Your task to perform on an android device: toggle translation in the chrome app Image 0: 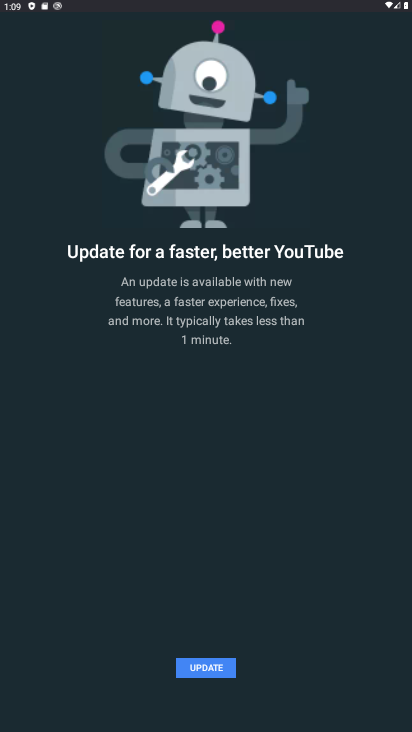
Step 0: drag from (250, 446) to (291, 247)
Your task to perform on an android device: toggle translation in the chrome app Image 1: 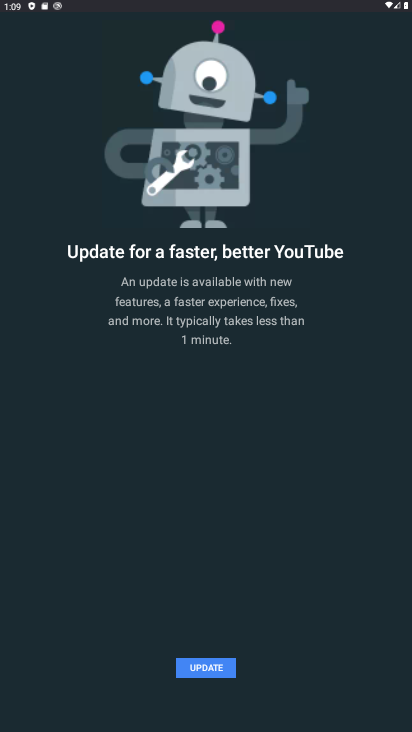
Step 1: press home button
Your task to perform on an android device: toggle translation in the chrome app Image 2: 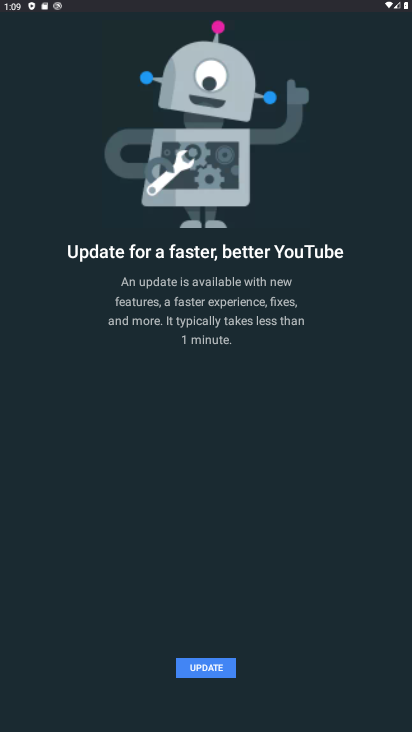
Step 2: press home button
Your task to perform on an android device: toggle translation in the chrome app Image 3: 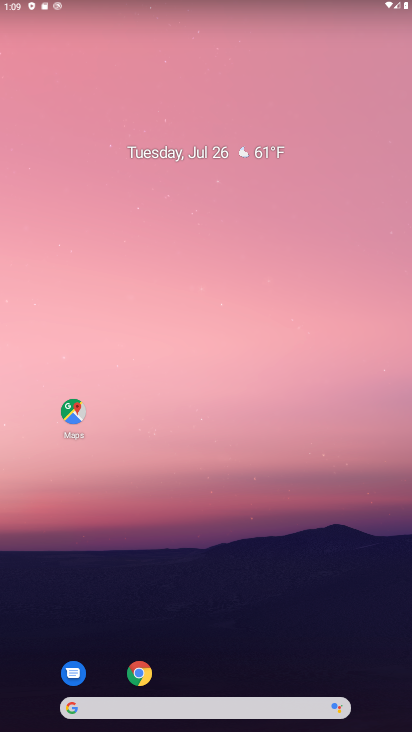
Step 3: drag from (167, 247) to (182, 22)
Your task to perform on an android device: toggle translation in the chrome app Image 4: 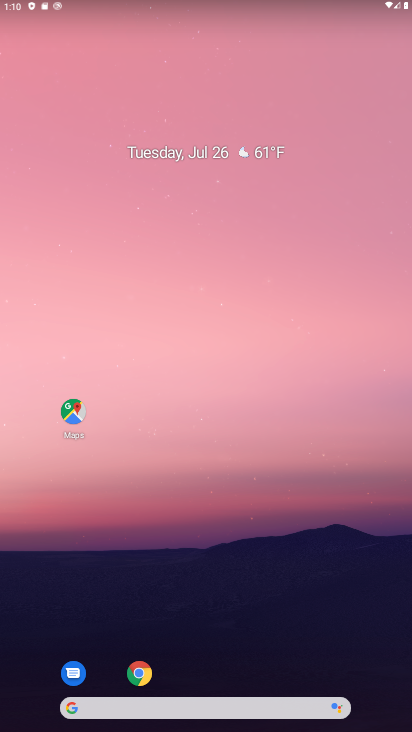
Step 4: drag from (194, 565) to (122, 158)
Your task to perform on an android device: toggle translation in the chrome app Image 5: 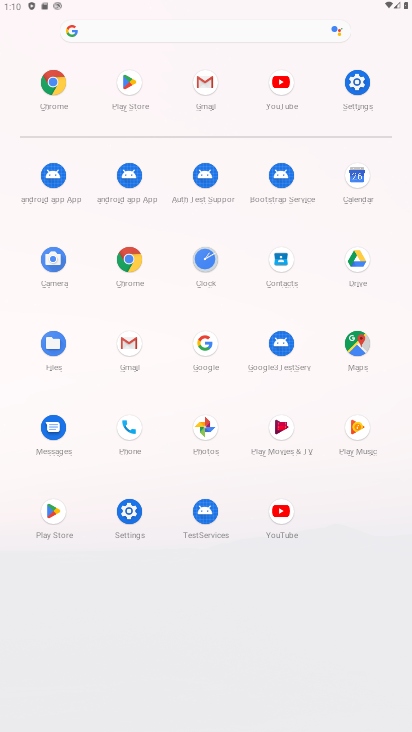
Step 5: click (114, 256)
Your task to perform on an android device: toggle translation in the chrome app Image 6: 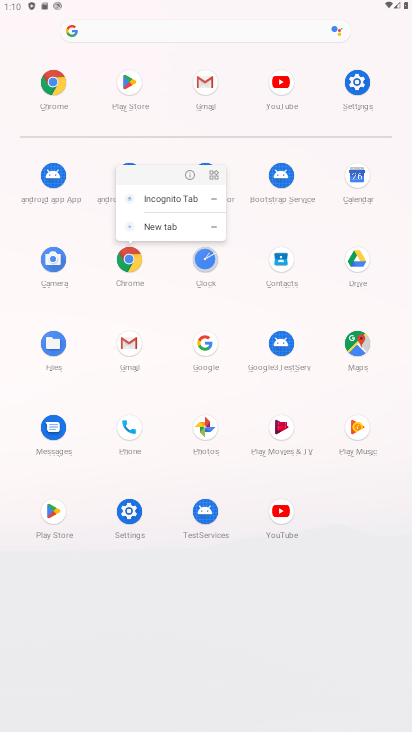
Step 6: click (183, 172)
Your task to perform on an android device: toggle translation in the chrome app Image 7: 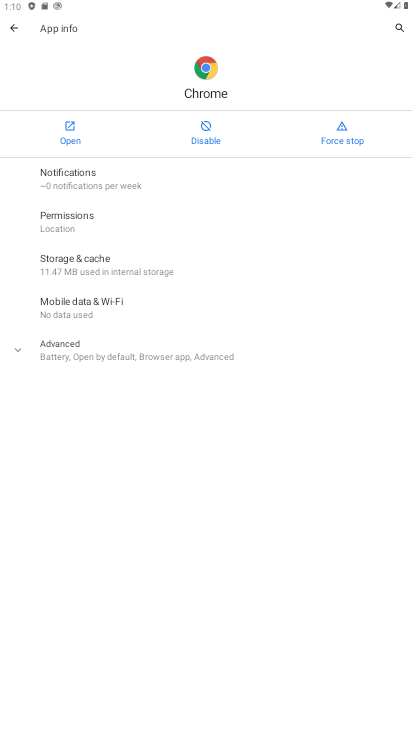
Step 7: drag from (176, 418) to (57, 182)
Your task to perform on an android device: toggle translation in the chrome app Image 8: 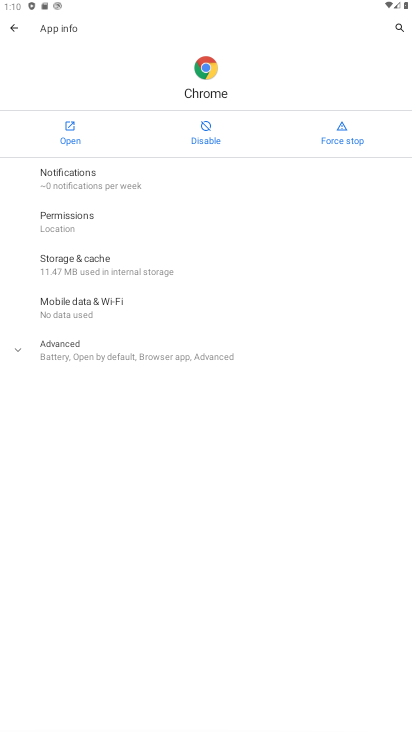
Step 8: click (61, 122)
Your task to perform on an android device: toggle translation in the chrome app Image 9: 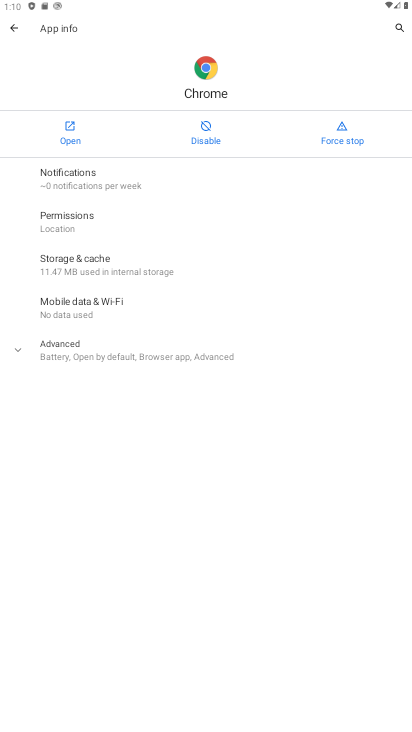
Step 9: drag from (354, 212) to (268, 699)
Your task to perform on an android device: toggle translation in the chrome app Image 10: 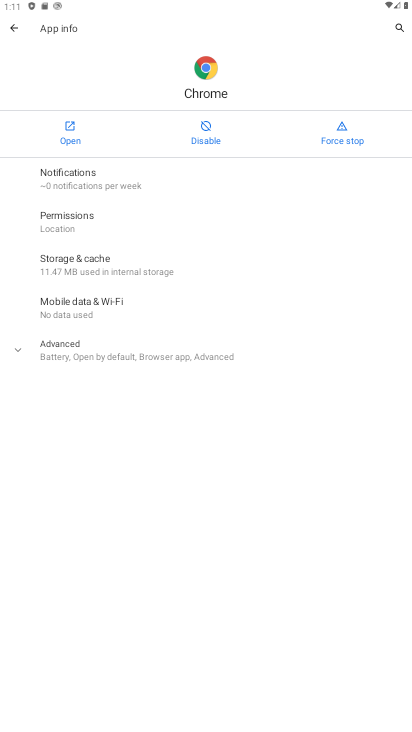
Step 10: click (72, 131)
Your task to perform on an android device: toggle translation in the chrome app Image 11: 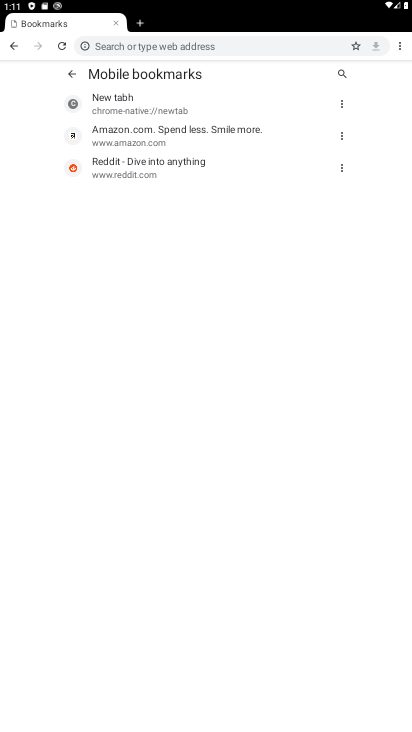
Step 11: drag from (200, 535) to (404, 48)
Your task to perform on an android device: toggle translation in the chrome app Image 12: 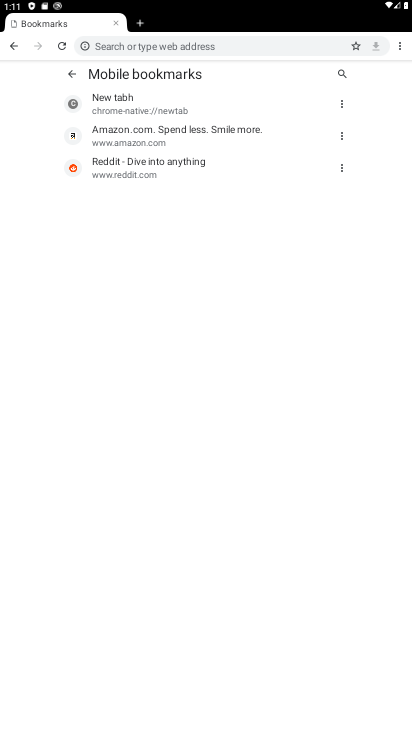
Step 12: drag from (161, 279) to (164, 578)
Your task to perform on an android device: toggle translation in the chrome app Image 13: 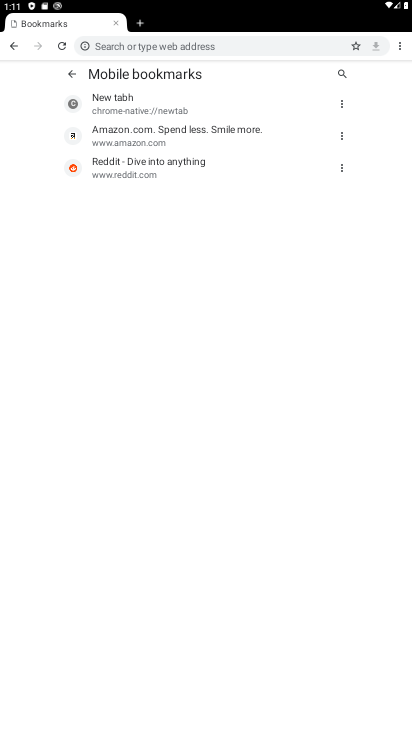
Step 13: drag from (204, 571) to (237, 307)
Your task to perform on an android device: toggle translation in the chrome app Image 14: 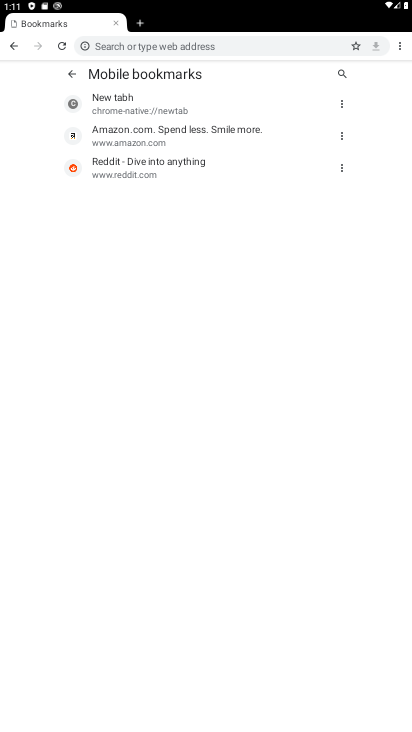
Step 14: drag from (136, 412) to (206, 698)
Your task to perform on an android device: toggle translation in the chrome app Image 15: 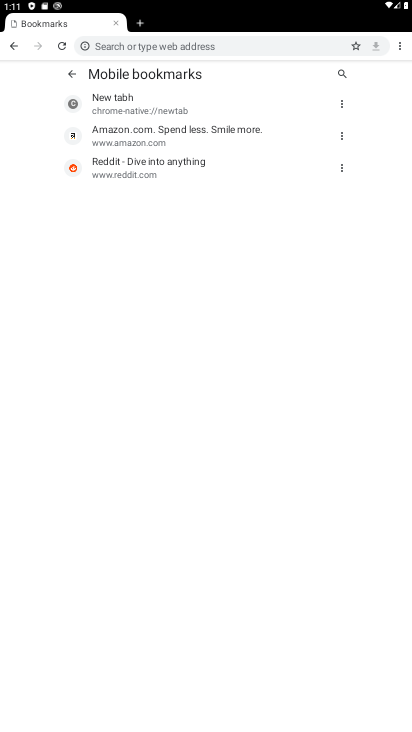
Step 15: drag from (397, 52) to (313, 214)
Your task to perform on an android device: toggle translation in the chrome app Image 16: 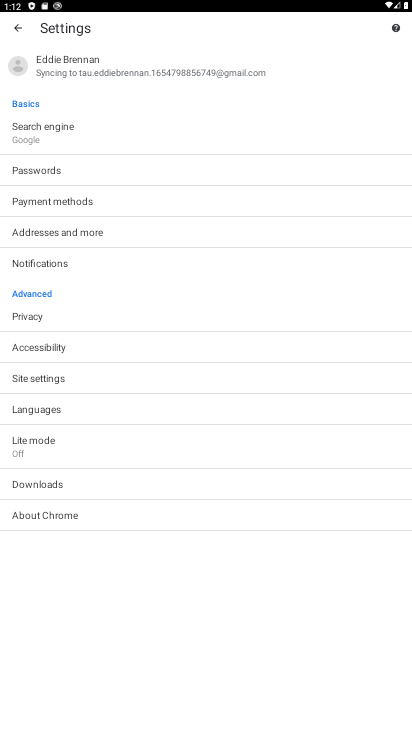
Step 16: click (48, 414)
Your task to perform on an android device: toggle translation in the chrome app Image 17: 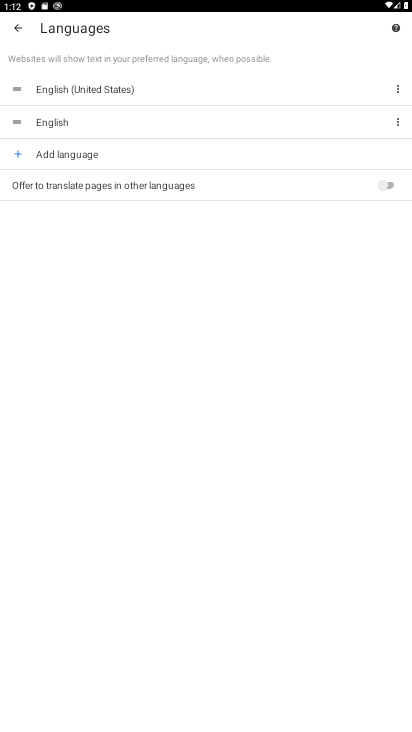
Step 17: click (263, 191)
Your task to perform on an android device: toggle translation in the chrome app Image 18: 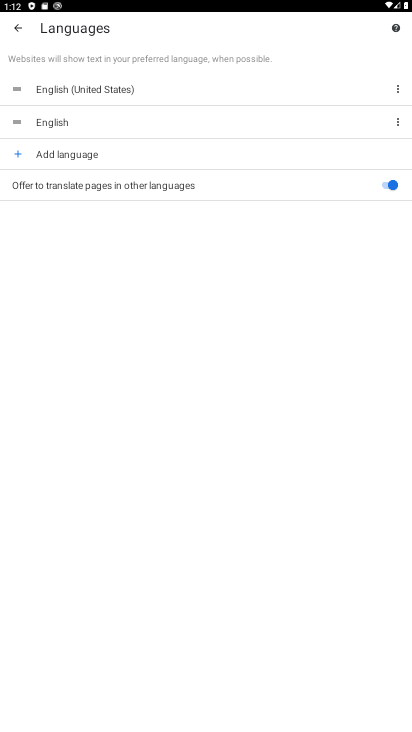
Step 18: task complete